Your task to perform on an android device: open app "WhatsApp Messenger" (install if not already installed) Image 0: 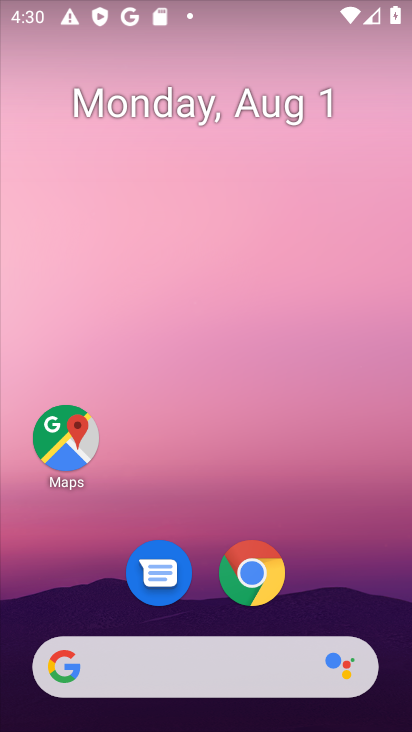
Step 0: drag from (268, 670) to (210, 233)
Your task to perform on an android device: open app "WhatsApp Messenger" (install if not already installed) Image 1: 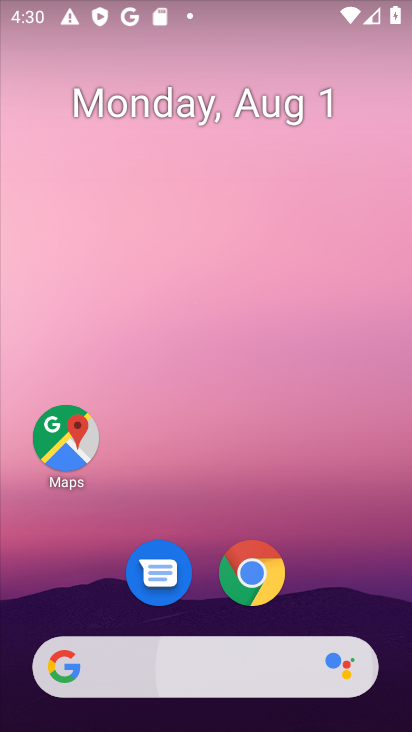
Step 1: drag from (271, 389) to (282, 183)
Your task to perform on an android device: open app "WhatsApp Messenger" (install if not already installed) Image 2: 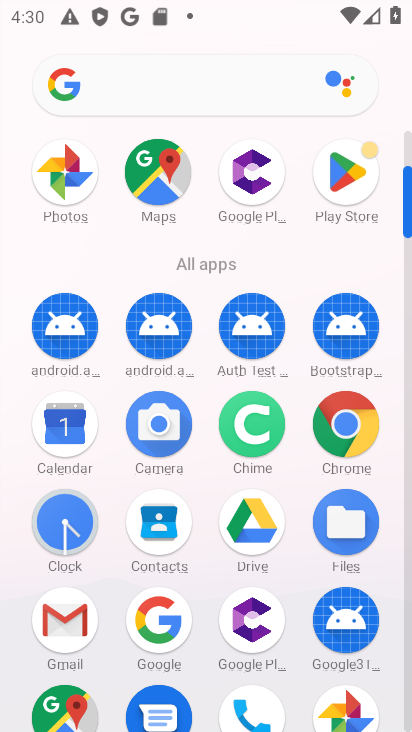
Step 2: click (344, 176)
Your task to perform on an android device: open app "WhatsApp Messenger" (install if not already installed) Image 3: 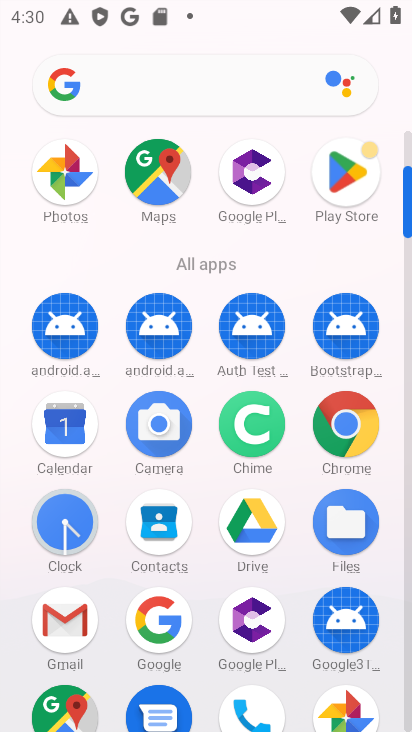
Step 3: click (344, 176)
Your task to perform on an android device: open app "WhatsApp Messenger" (install if not already installed) Image 4: 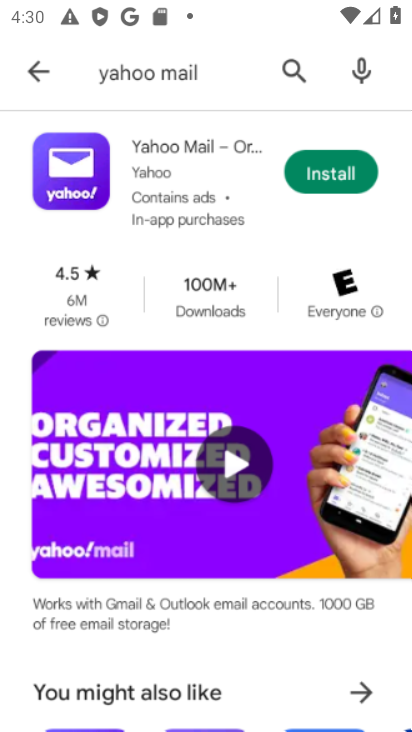
Step 4: click (345, 176)
Your task to perform on an android device: open app "WhatsApp Messenger" (install if not already installed) Image 5: 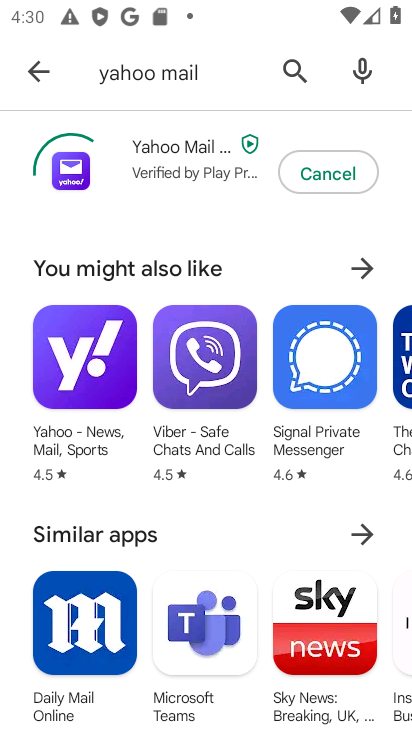
Step 5: click (41, 68)
Your task to perform on an android device: open app "WhatsApp Messenger" (install if not already installed) Image 6: 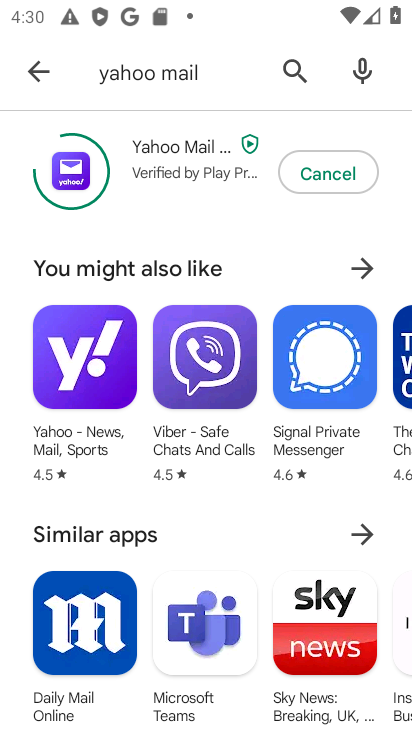
Step 6: click (41, 65)
Your task to perform on an android device: open app "WhatsApp Messenger" (install if not already installed) Image 7: 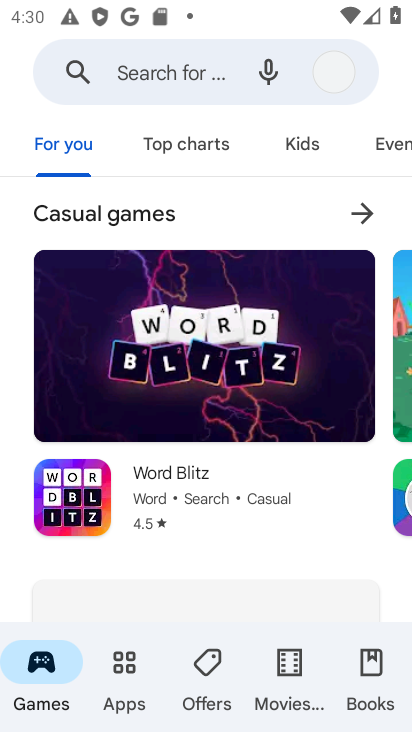
Step 7: click (41, 65)
Your task to perform on an android device: open app "WhatsApp Messenger" (install if not already installed) Image 8: 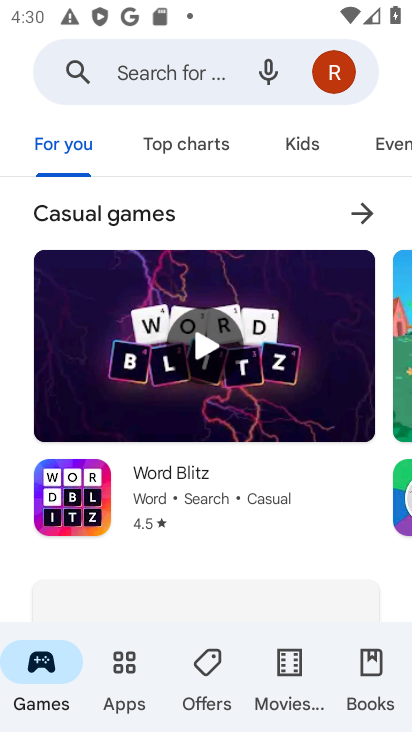
Step 8: click (41, 65)
Your task to perform on an android device: open app "WhatsApp Messenger" (install if not already installed) Image 9: 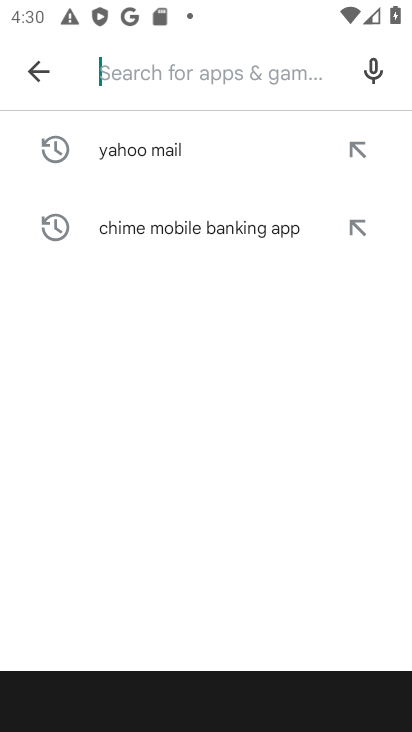
Step 9: click (139, 71)
Your task to perform on an android device: open app "WhatsApp Messenger" (install if not already installed) Image 10: 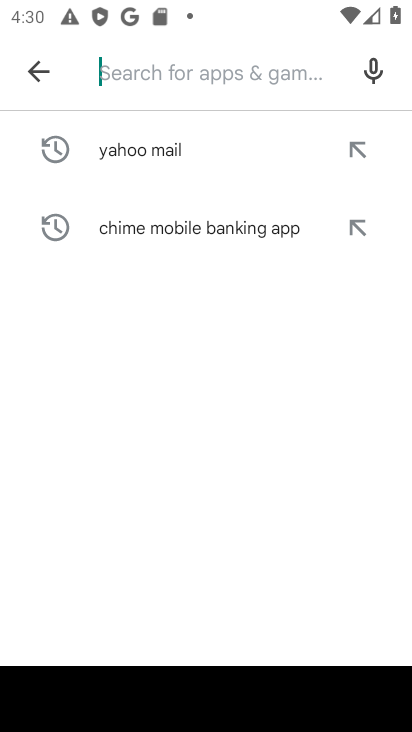
Step 10: type "whats app messenger"
Your task to perform on an android device: open app "WhatsApp Messenger" (install if not already installed) Image 11: 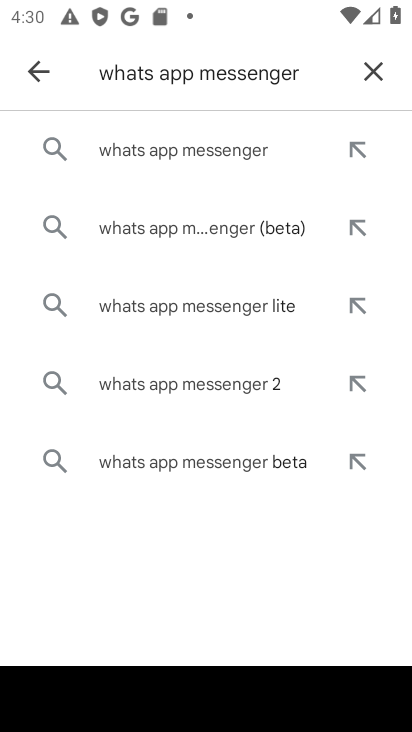
Step 11: click (199, 145)
Your task to perform on an android device: open app "WhatsApp Messenger" (install if not already installed) Image 12: 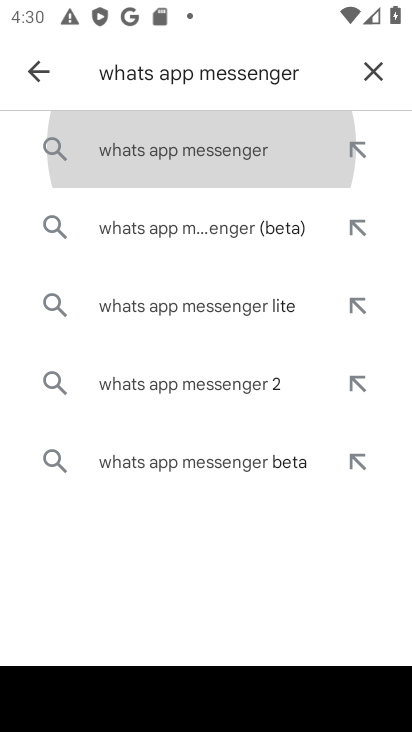
Step 12: click (200, 145)
Your task to perform on an android device: open app "WhatsApp Messenger" (install if not already installed) Image 13: 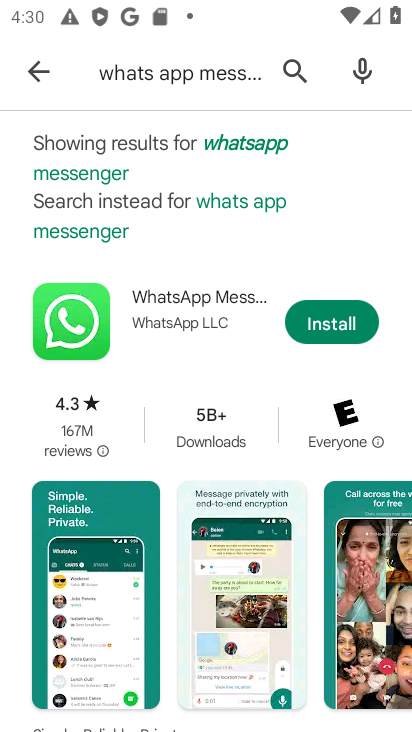
Step 13: click (322, 319)
Your task to perform on an android device: open app "WhatsApp Messenger" (install if not already installed) Image 14: 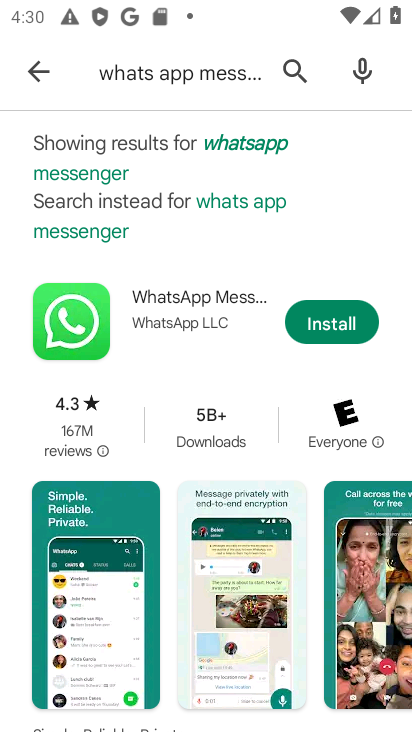
Step 14: click (322, 319)
Your task to perform on an android device: open app "WhatsApp Messenger" (install if not already installed) Image 15: 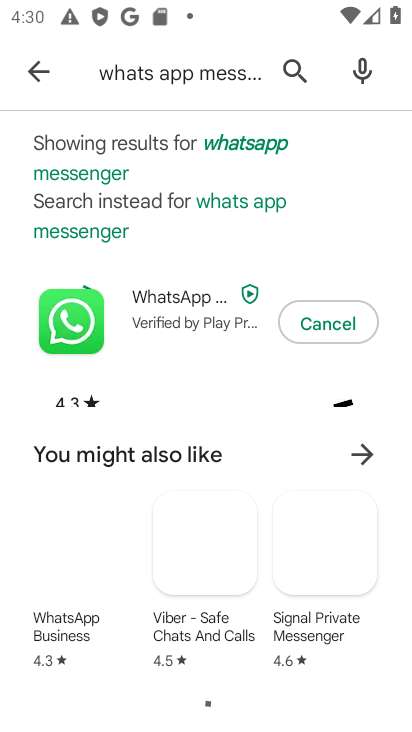
Step 15: click (322, 319)
Your task to perform on an android device: open app "WhatsApp Messenger" (install if not already installed) Image 16: 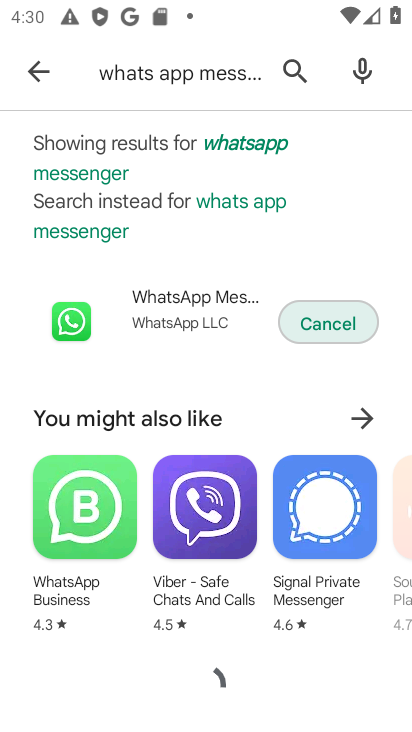
Step 16: click (322, 319)
Your task to perform on an android device: open app "WhatsApp Messenger" (install if not already installed) Image 17: 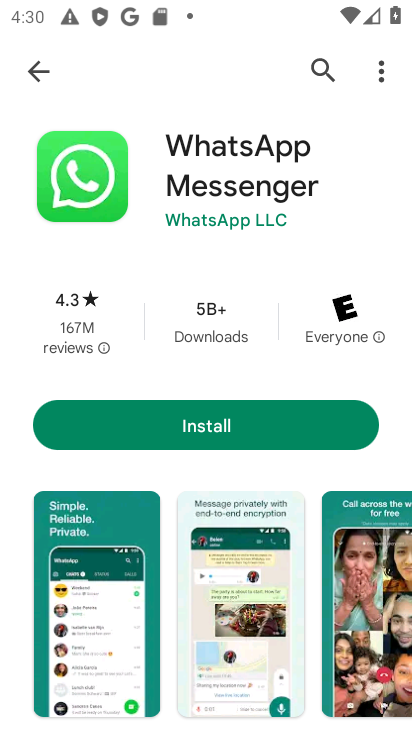
Step 17: click (206, 412)
Your task to perform on an android device: open app "WhatsApp Messenger" (install if not already installed) Image 18: 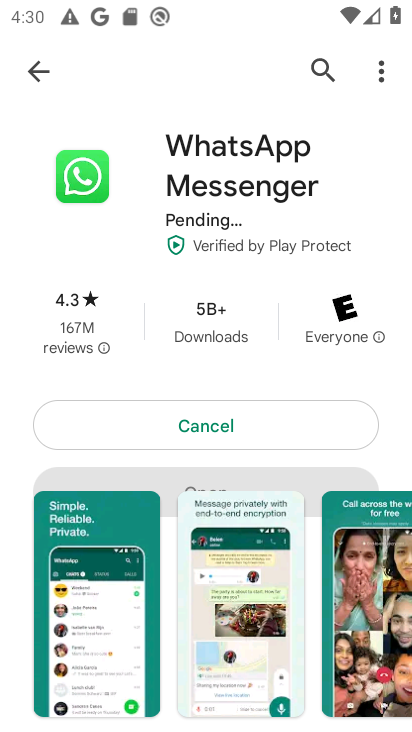
Step 18: click (223, 423)
Your task to perform on an android device: open app "WhatsApp Messenger" (install if not already installed) Image 19: 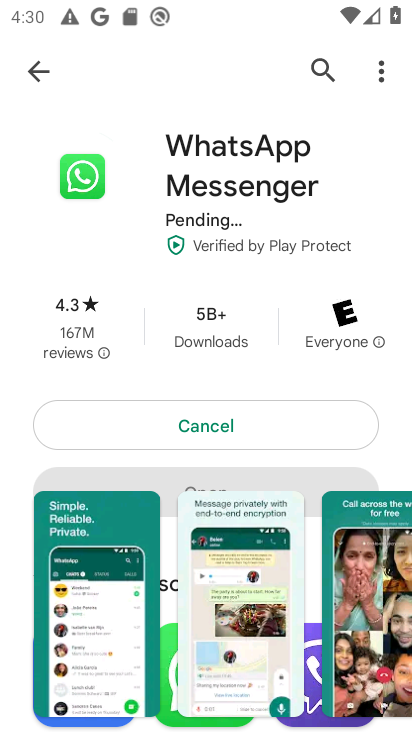
Step 19: click (232, 427)
Your task to perform on an android device: open app "WhatsApp Messenger" (install if not already installed) Image 20: 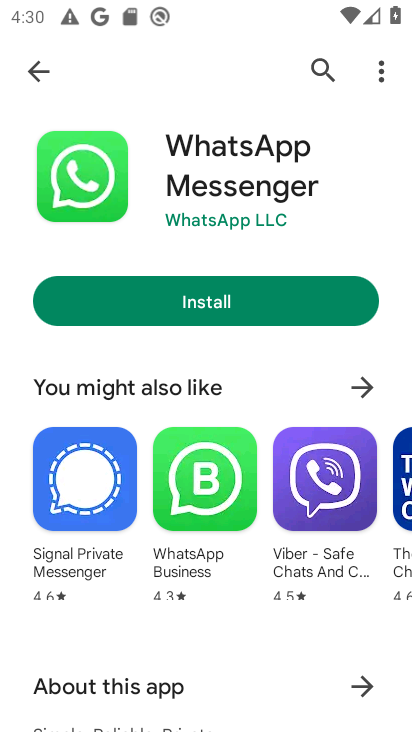
Step 20: click (245, 296)
Your task to perform on an android device: open app "WhatsApp Messenger" (install if not already installed) Image 21: 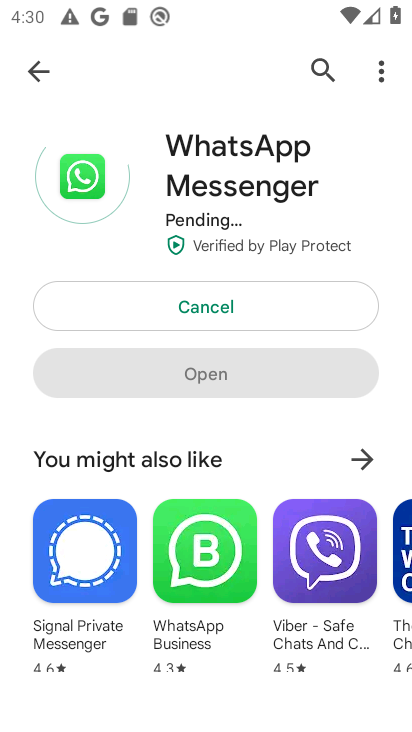
Step 21: click (245, 296)
Your task to perform on an android device: open app "WhatsApp Messenger" (install if not already installed) Image 22: 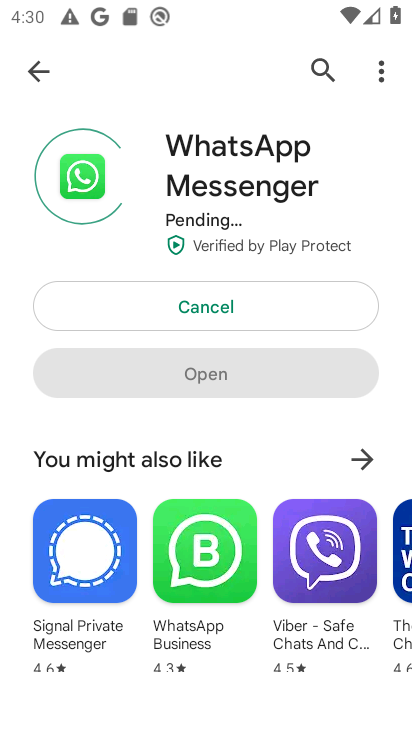
Step 22: click (245, 296)
Your task to perform on an android device: open app "WhatsApp Messenger" (install if not already installed) Image 23: 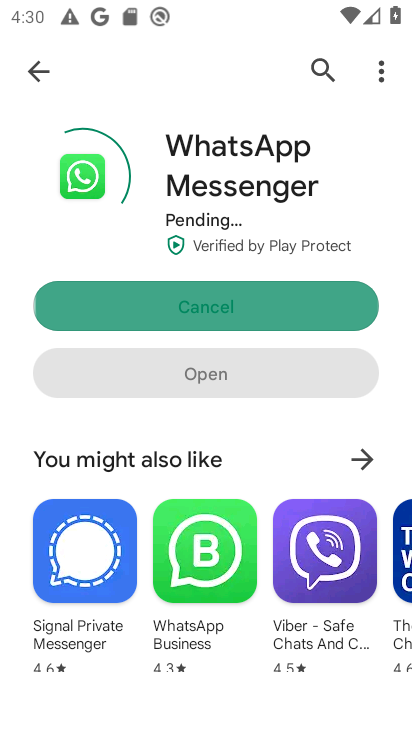
Step 23: click (245, 296)
Your task to perform on an android device: open app "WhatsApp Messenger" (install if not already installed) Image 24: 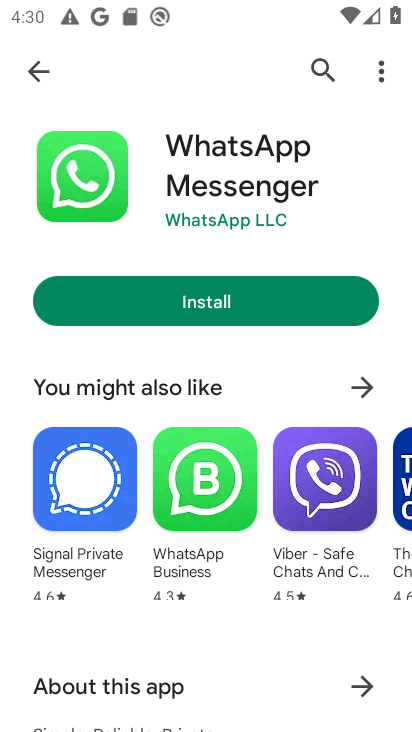
Step 24: click (247, 301)
Your task to perform on an android device: open app "WhatsApp Messenger" (install if not already installed) Image 25: 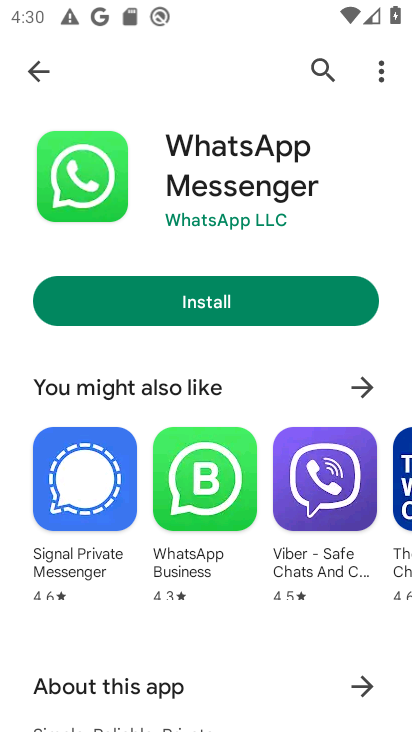
Step 25: click (247, 301)
Your task to perform on an android device: open app "WhatsApp Messenger" (install if not already installed) Image 26: 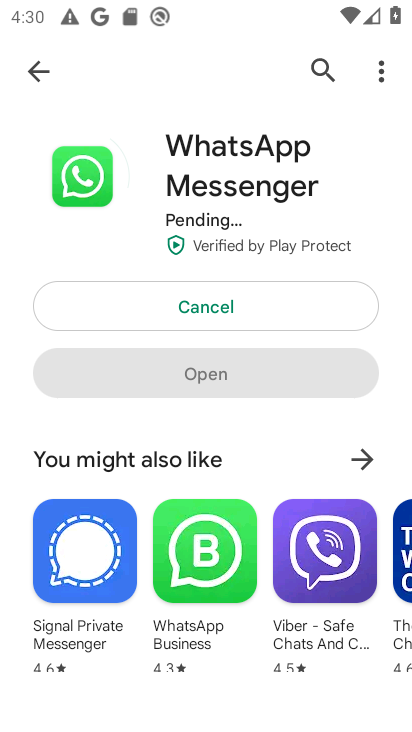
Step 26: click (249, 300)
Your task to perform on an android device: open app "WhatsApp Messenger" (install if not already installed) Image 27: 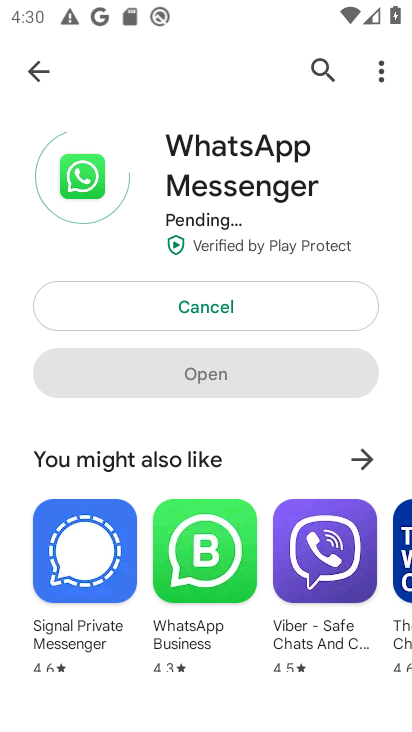
Step 27: click (249, 301)
Your task to perform on an android device: open app "WhatsApp Messenger" (install if not already installed) Image 28: 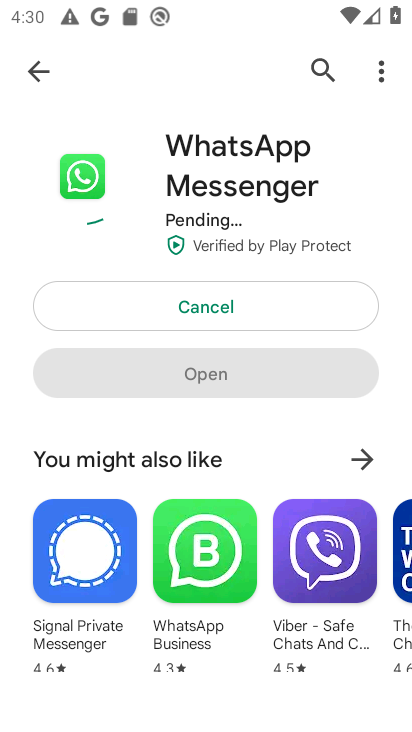
Step 28: click (251, 306)
Your task to perform on an android device: open app "WhatsApp Messenger" (install if not already installed) Image 29: 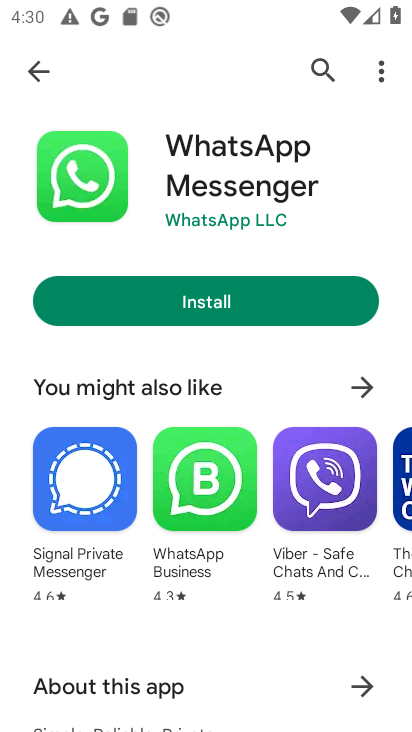
Step 29: click (245, 309)
Your task to perform on an android device: open app "WhatsApp Messenger" (install if not already installed) Image 30: 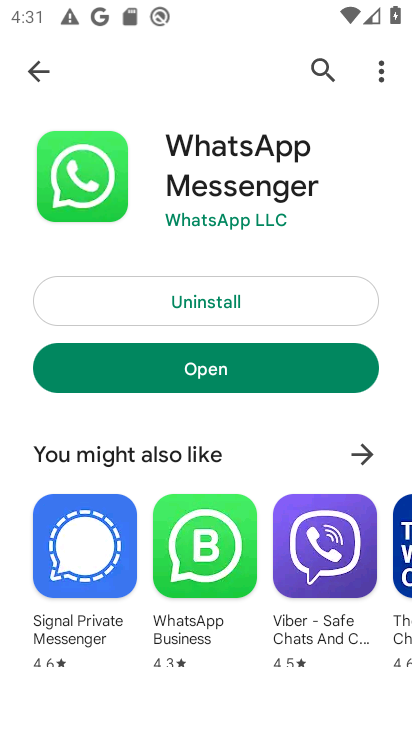
Step 30: click (229, 385)
Your task to perform on an android device: open app "WhatsApp Messenger" (install if not already installed) Image 31: 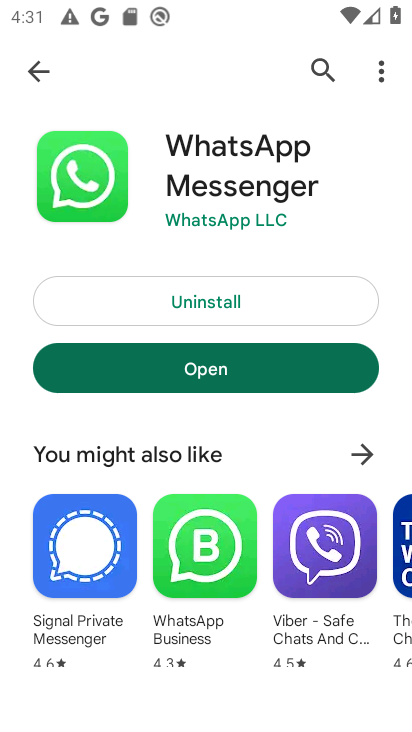
Step 31: click (229, 385)
Your task to perform on an android device: open app "WhatsApp Messenger" (install if not already installed) Image 32: 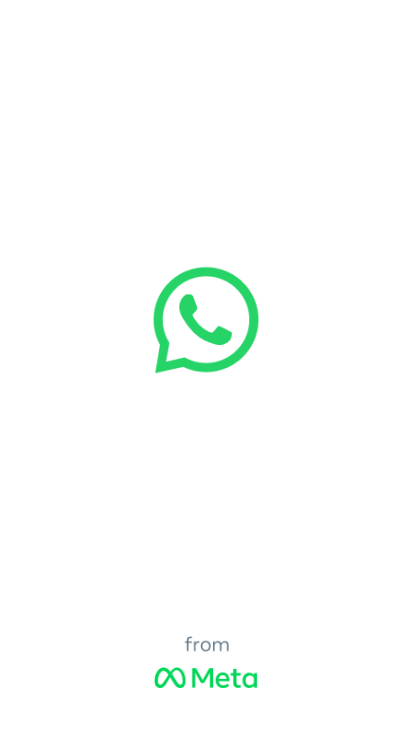
Step 32: click (229, 385)
Your task to perform on an android device: open app "WhatsApp Messenger" (install if not already installed) Image 33: 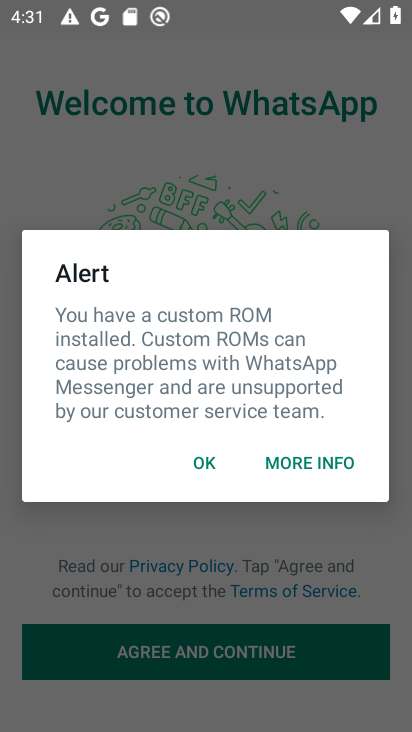
Step 33: task complete